Your task to perform on an android device: toggle location history Image 0: 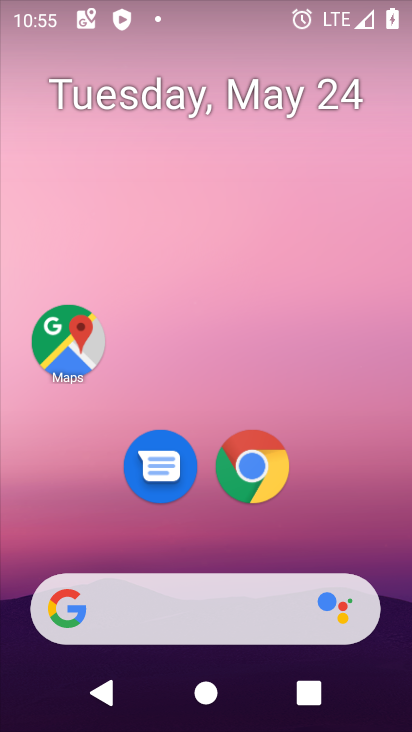
Step 0: drag from (384, 537) to (381, 203)
Your task to perform on an android device: toggle location history Image 1: 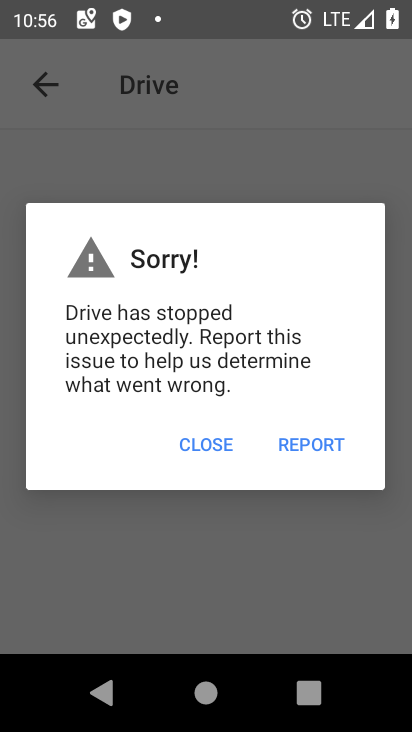
Step 1: press home button
Your task to perform on an android device: toggle location history Image 2: 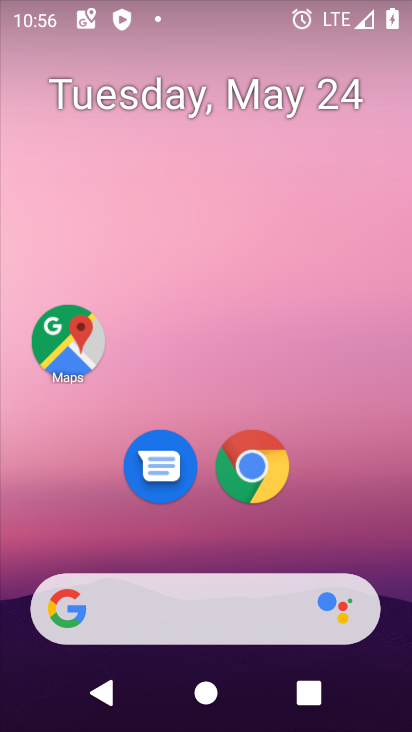
Step 2: drag from (382, 559) to (373, 160)
Your task to perform on an android device: toggle location history Image 3: 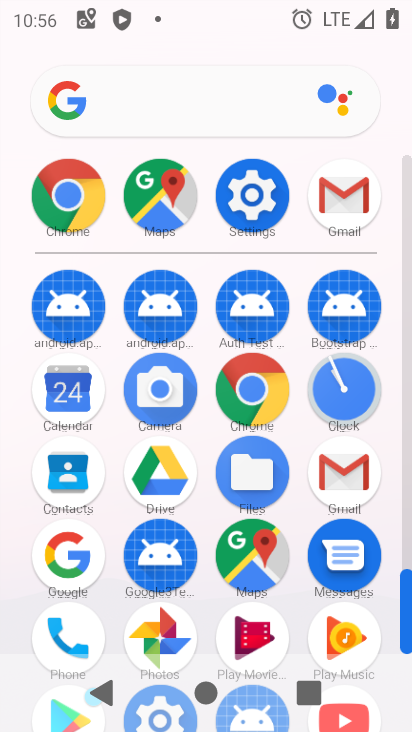
Step 3: click (250, 190)
Your task to perform on an android device: toggle location history Image 4: 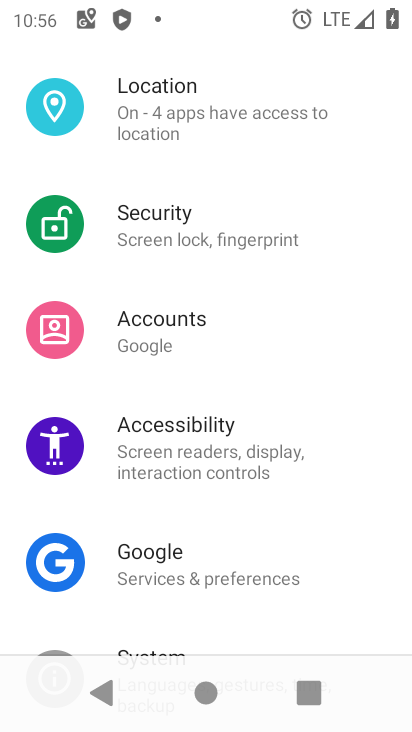
Step 4: drag from (362, 519) to (363, 427)
Your task to perform on an android device: toggle location history Image 5: 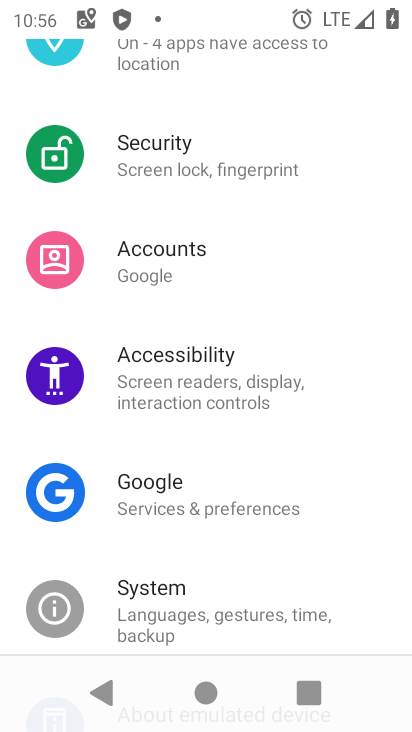
Step 5: drag from (364, 599) to (355, 457)
Your task to perform on an android device: toggle location history Image 6: 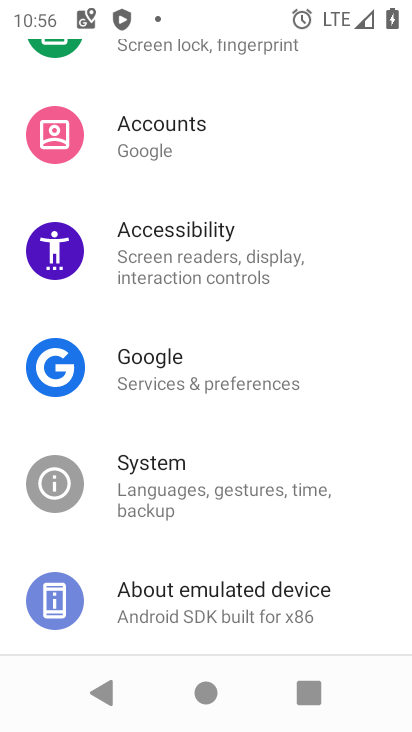
Step 6: drag from (352, 602) to (353, 450)
Your task to perform on an android device: toggle location history Image 7: 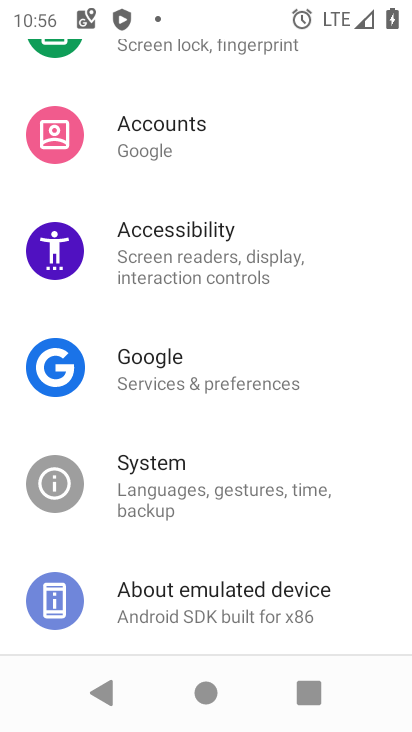
Step 7: drag from (355, 330) to (357, 447)
Your task to perform on an android device: toggle location history Image 8: 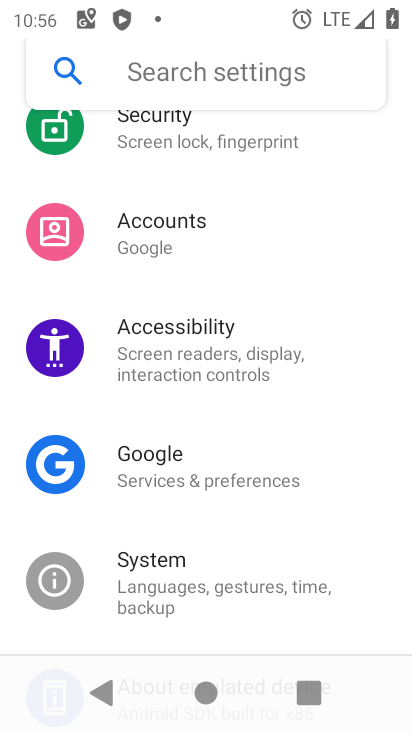
Step 8: drag from (342, 274) to (337, 363)
Your task to perform on an android device: toggle location history Image 9: 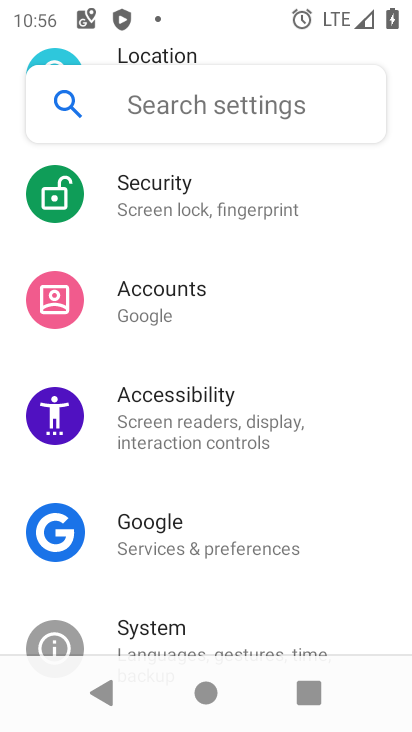
Step 9: drag from (345, 217) to (346, 316)
Your task to perform on an android device: toggle location history Image 10: 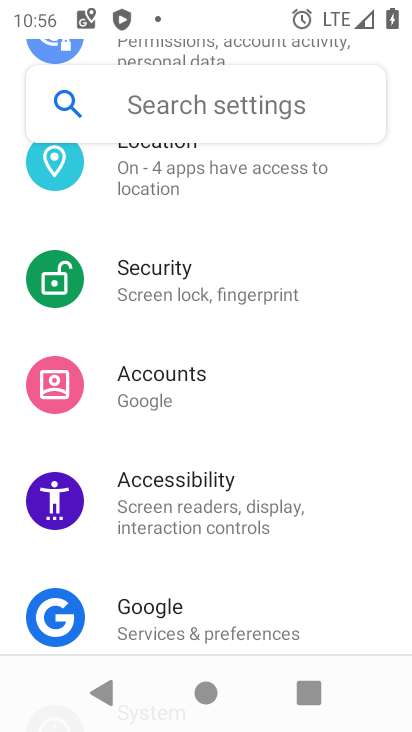
Step 10: drag from (342, 224) to (350, 337)
Your task to perform on an android device: toggle location history Image 11: 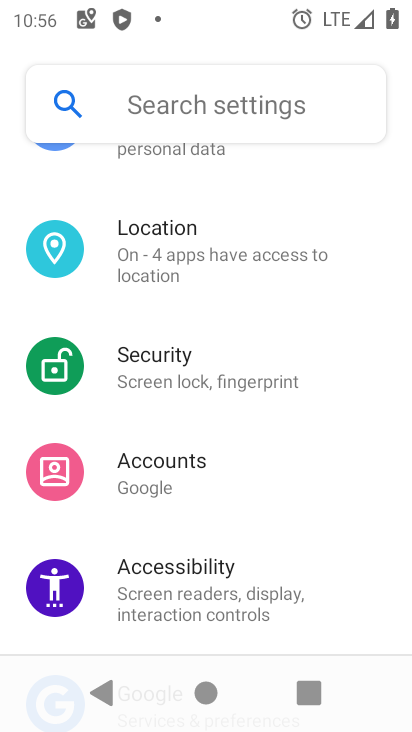
Step 11: drag from (370, 198) to (384, 327)
Your task to perform on an android device: toggle location history Image 12: 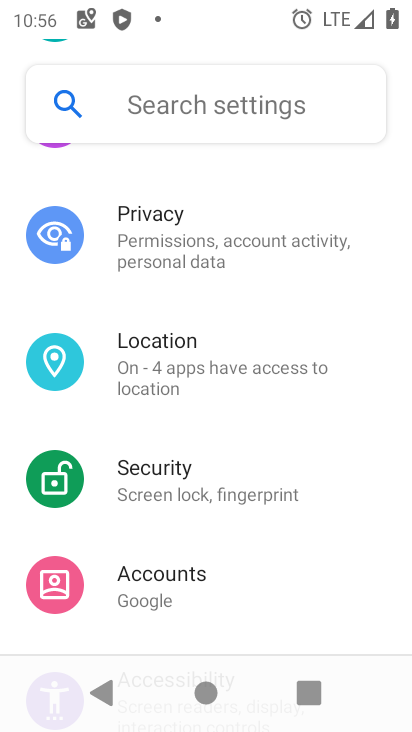
Step 12: drag from (380, 209) to (386, 345)
Your task to perform on an android device: toggle location history Image 13: 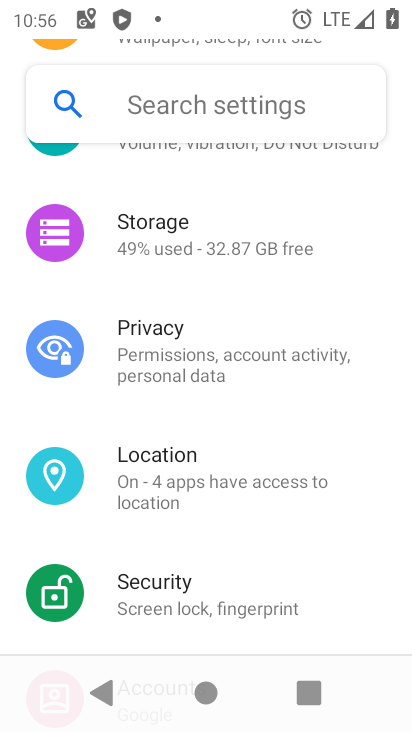
Step 13: drag from (367, 231) to (380, 360)
Your task to perform on an android device: toggle location history Image 14: 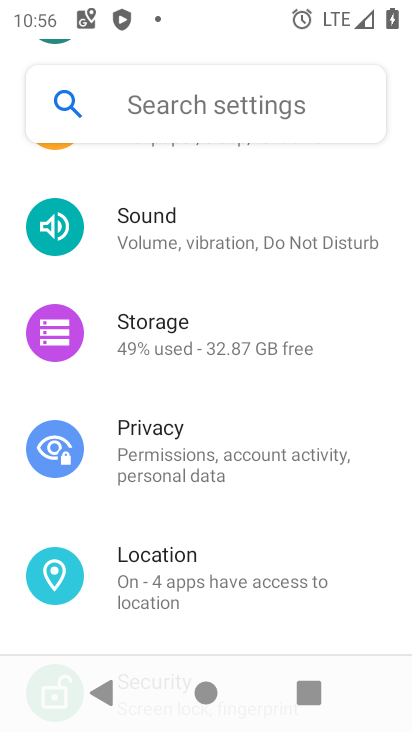
Step 14: click (180, 565)
Your task to perform on an android device: toggle location history Image 15: 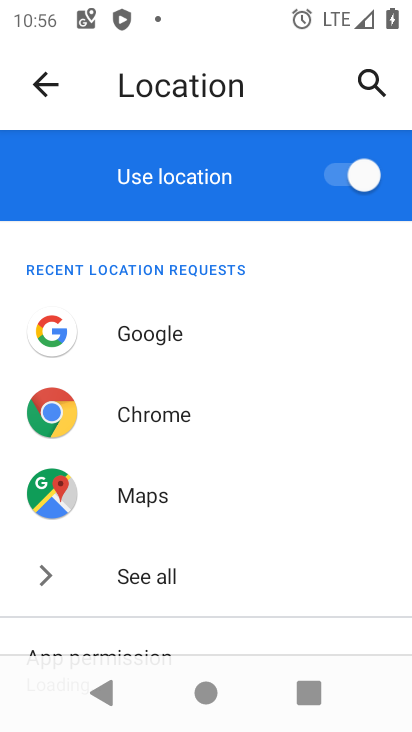
Step 15: drag from (311, 544) to (329, 378)
Your task to perform on an android device: toggle location history Image 16: 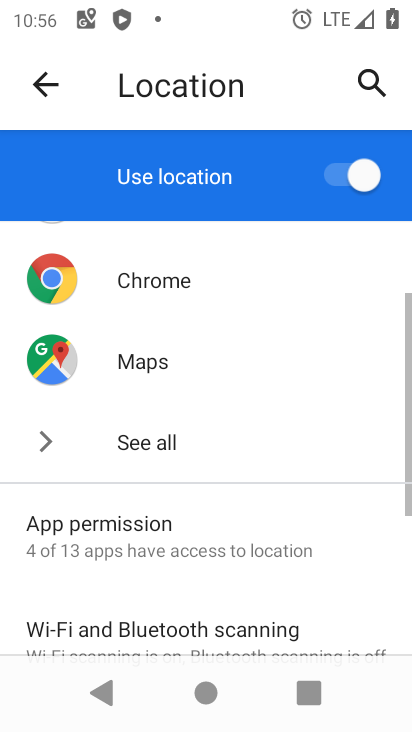
Step 16: drag from (332, 544) to (337, 395)
Your task to perform on an android device: toggle location history Image 17: 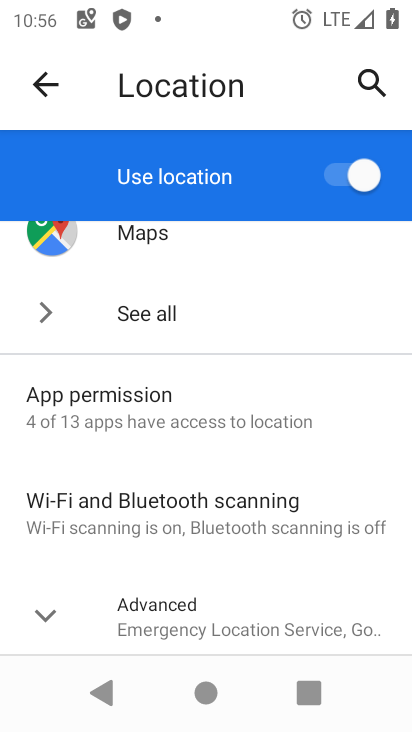
Step 17: drag from (351, 583) to (354, 427)
Your task to perform on an android device: toggle location history Image 18: 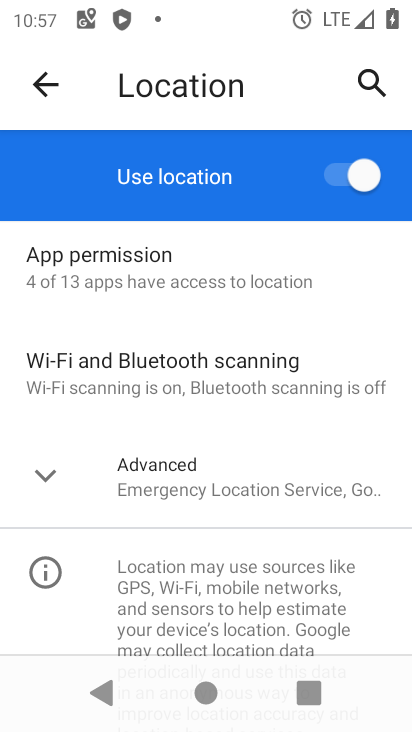
Step 18: click (340, 485)
Your task to perform on an android device: toggle location history Image 19: 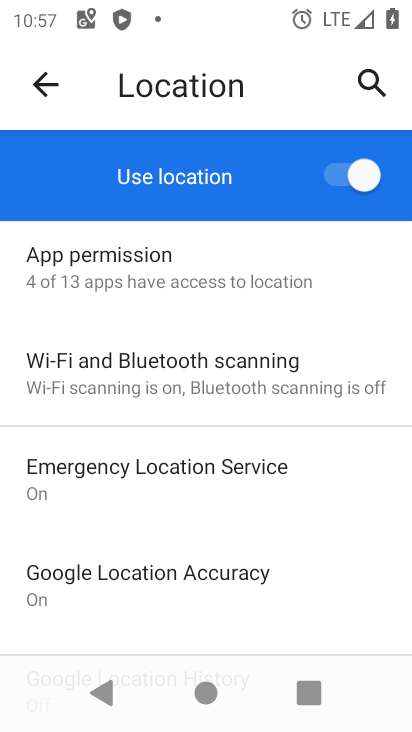
Step 19: drag from (329, 596) to (320, 422)
Your task to perform on an android device: toggle location history Image 20: 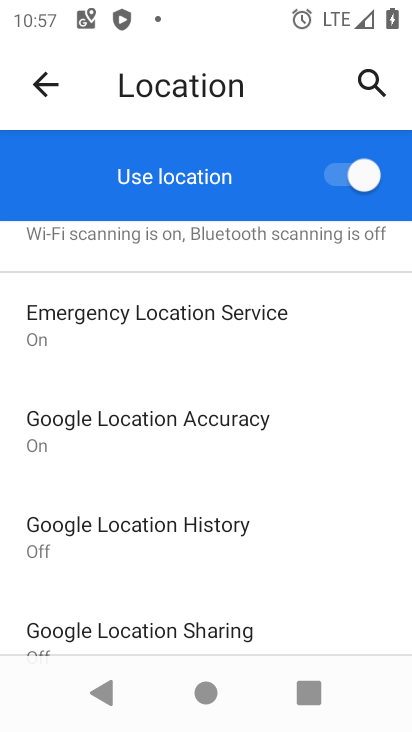
Step 20: click (226, 538)
Your task to perform on an android device: toggle location history Image 21: 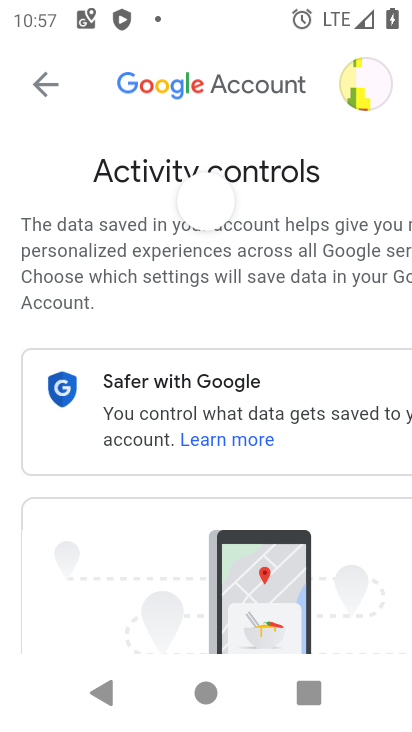
Step 21: drag from (290, 504) to (287, 376)
Your task to perform on an android device: toggle location history Image 22: 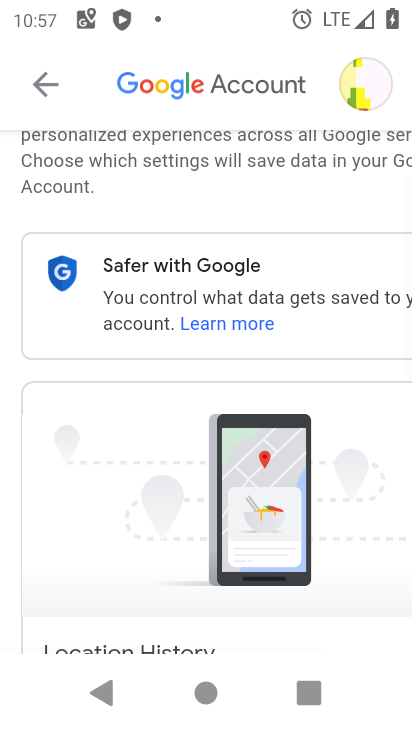
Step 22: drag from (277, 512) to (257, 329)
Your task to perform on an android device: toggle location history Image 23: 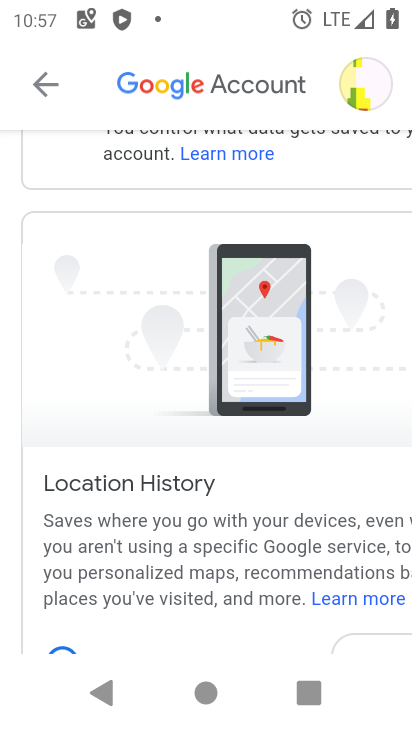
Step 23: drag from (270, 537) to (286, 375)
Your task to perform on an android device: toggle location history Image 24: 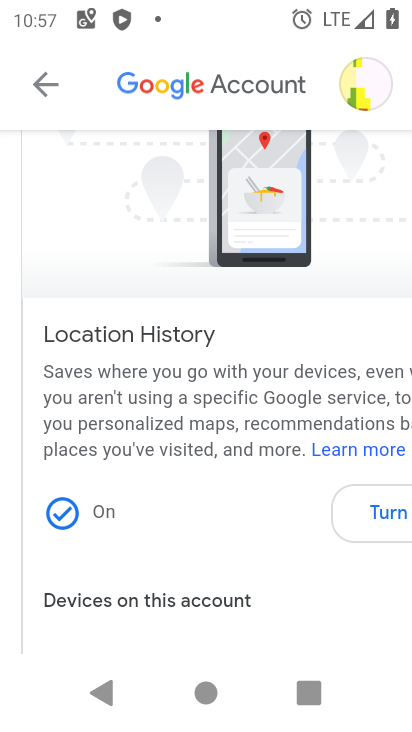
Step 24: click (370, 505)
Your task to perform on an android device: toggle location history Image 25: 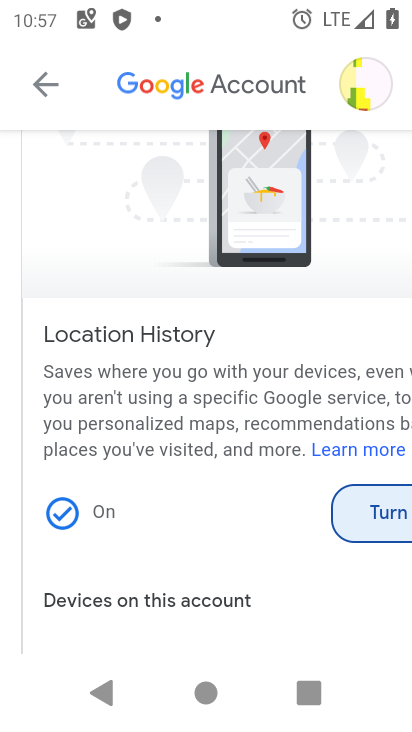
Step 25: click (370, 505)
Your task to perform on an android device: toggle location history Image 26: 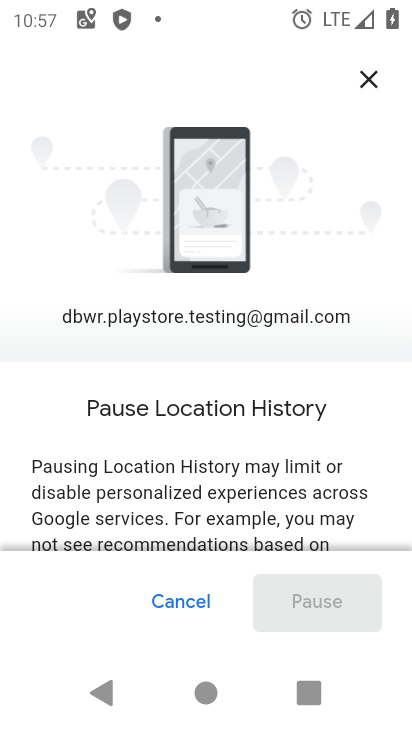
Step 26: drag from (344, 491) to (336, 370)
Your task to perform on an android device: toggle location history Image 27: 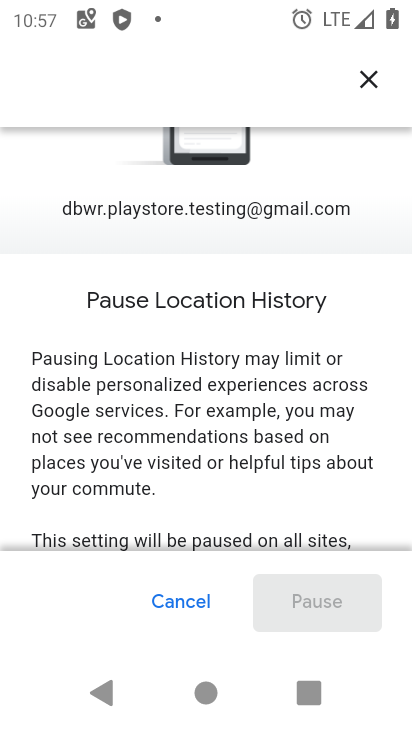
Step 27: drag from (337, 481) to (338, 349)
Your task to perform on an android device: toggle location history Image 28: 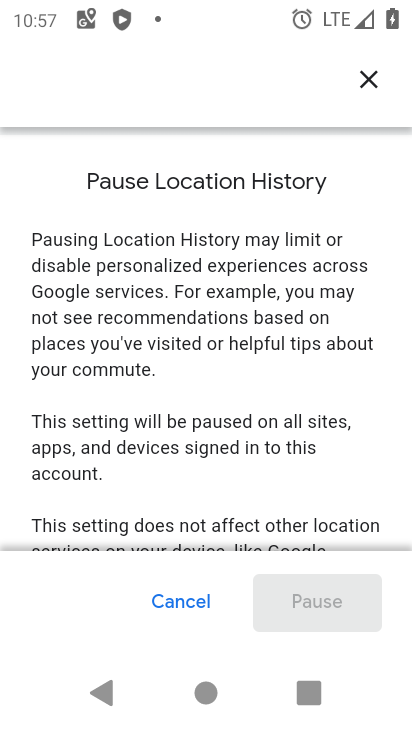
Step 28: drag from (351, 482) to (351, 360)
Your task to perform on an android device: toggle location history Image 29: 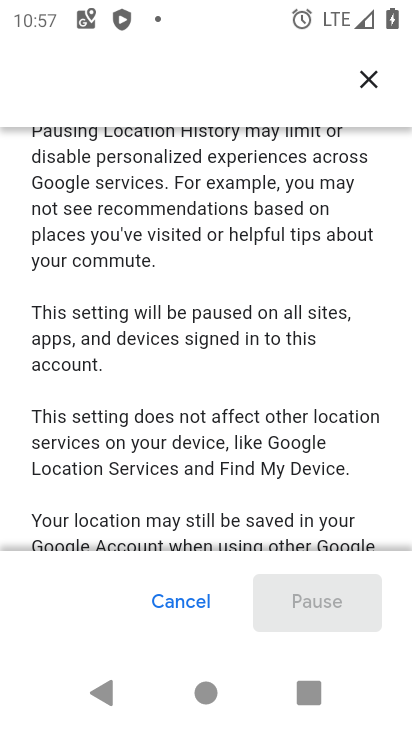
Step 29: drag from (354, 490) to (346, 352)
Your task to perform on an android device: toggle location history Image 30: 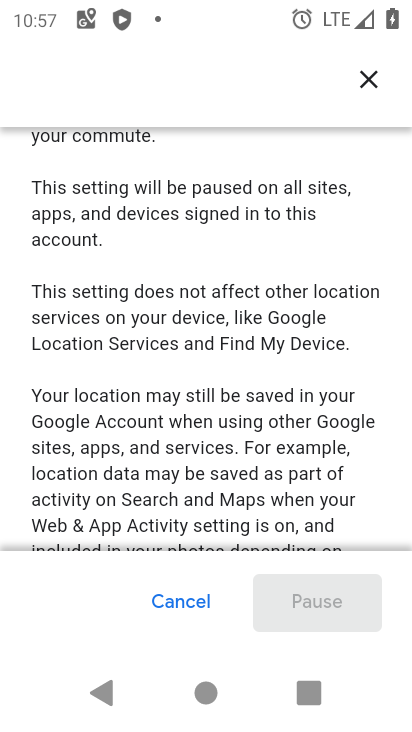
Step 30: drag from (355, 506) to (346, 389)
Your task to perform on an android device: toggle location history Image 31: 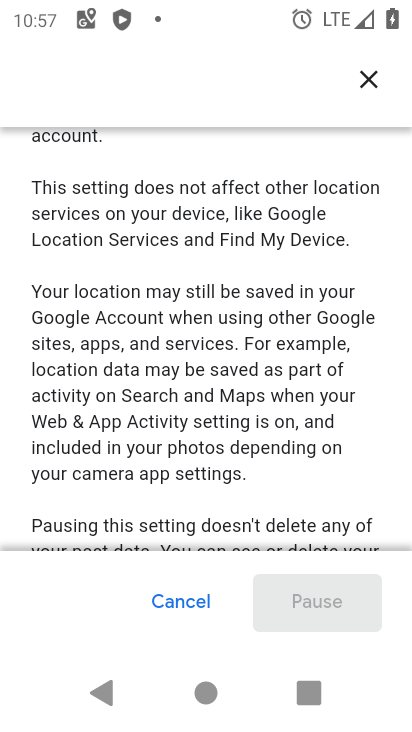
Step 31: drag from (338, 498) to (338, 355)
Your task to perform on an android device: toggle location history Image 32: 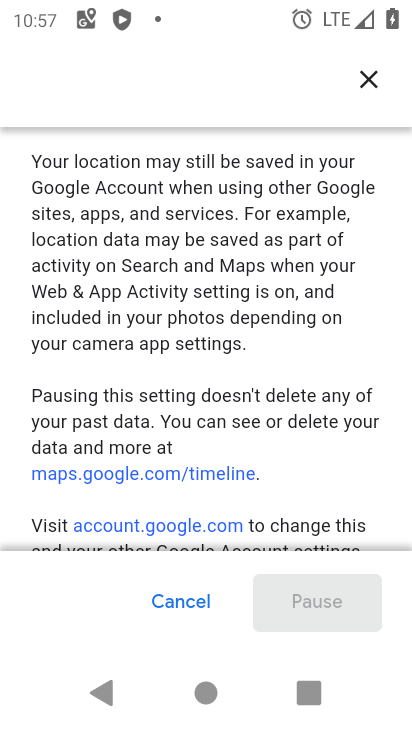
Step 32: drag from (322, 483) to (324, 361)
Your task to perform on an android device: toggle location history Image 33: 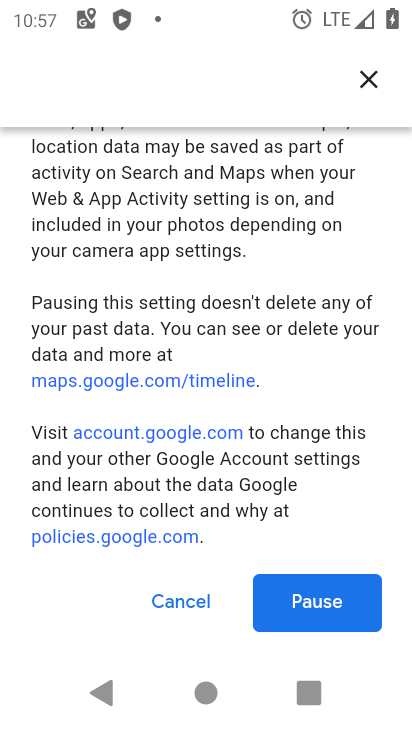
Step 33: click (327, 617)
Your task to perform on an android device: toggle location history Image 34: 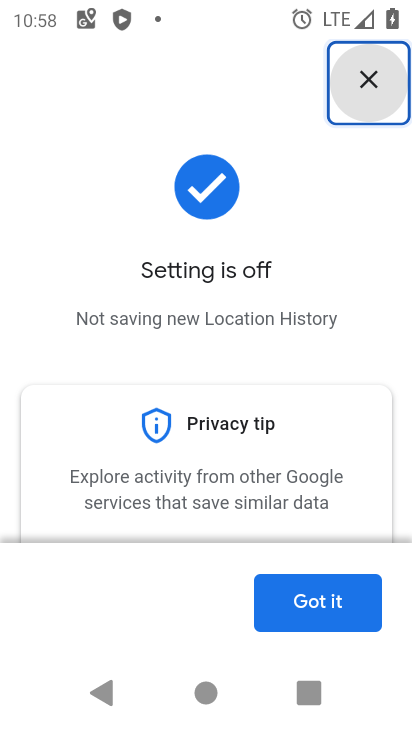
Step 34: task complete